Your task to perform on an android device: Go to Wikipedia Image 0: 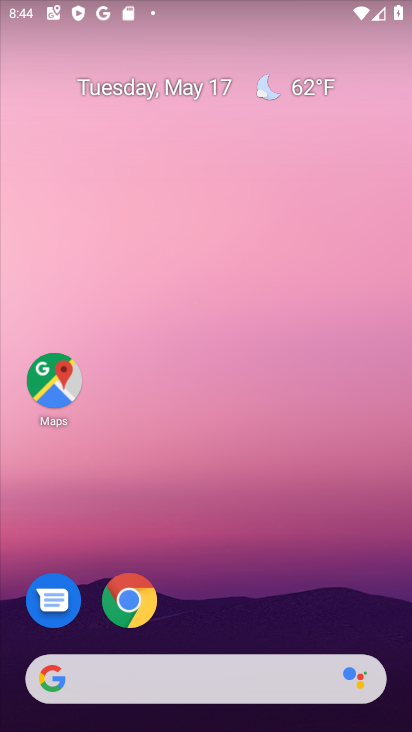
Step 0: click (131, 603)
Your task to perform on an android device: Go to Wikipedia Image 1: 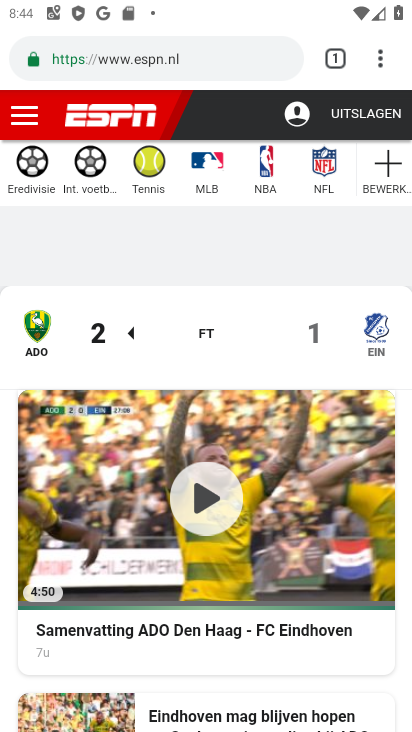
Step 1: click (380, 67)
Your task to perform on an android device: Go to Wikipedia Image 2: 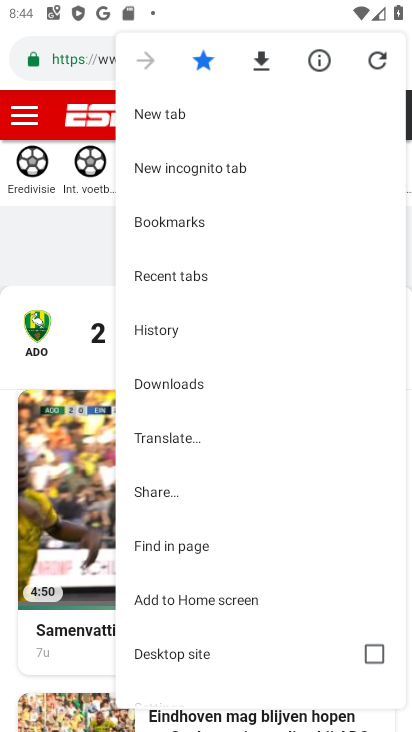
Step 2: click (154, 115)
Your task to perform on an android device: Go to Wikipedia Image 3: 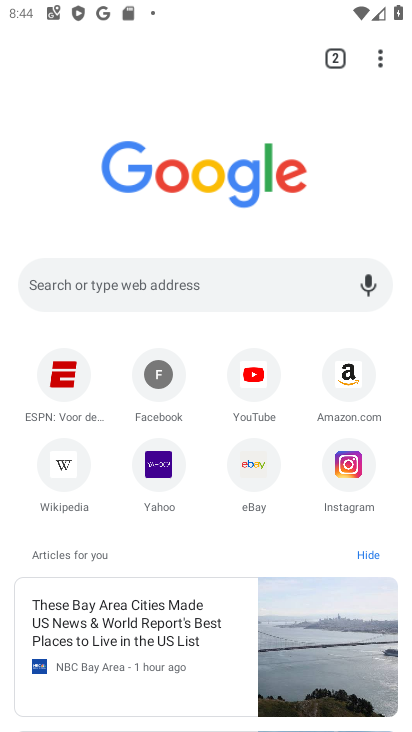
Step 3: click (180, 284)
Your task to perform on an android device: Go to Wikipedia Image 4: 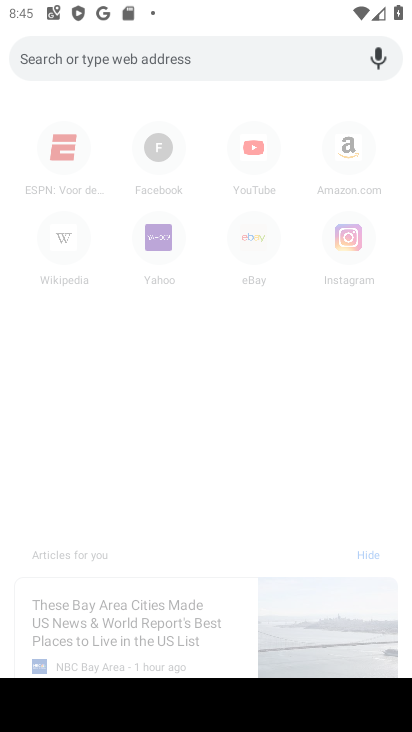
Step 4: type "Wikipedia"
Your task to perform on an android device: Go to Wikipedia Image 5: 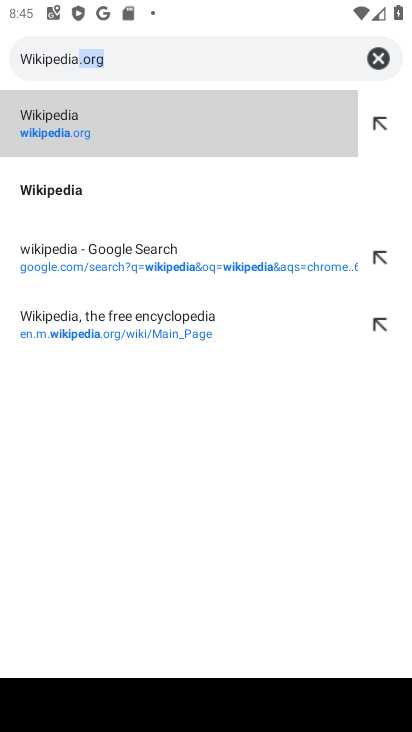
Step 5: click (66, 98)
Your task to perform on an android device: Go to Wikipedia Image 6: 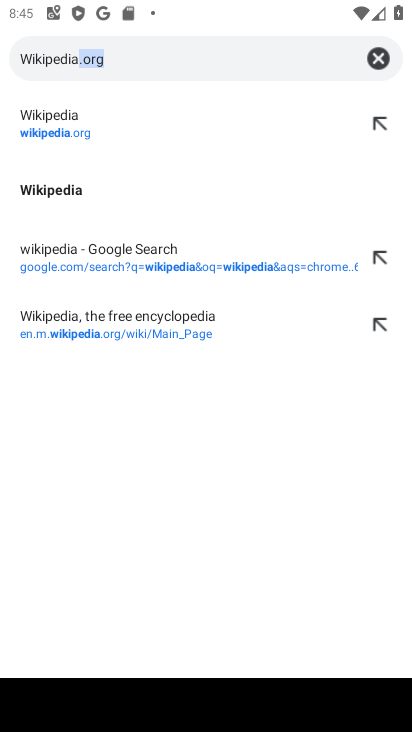
Step 6: click (61, 123)
Your task to perform on an android device: Go to Wikipedia Image 7: 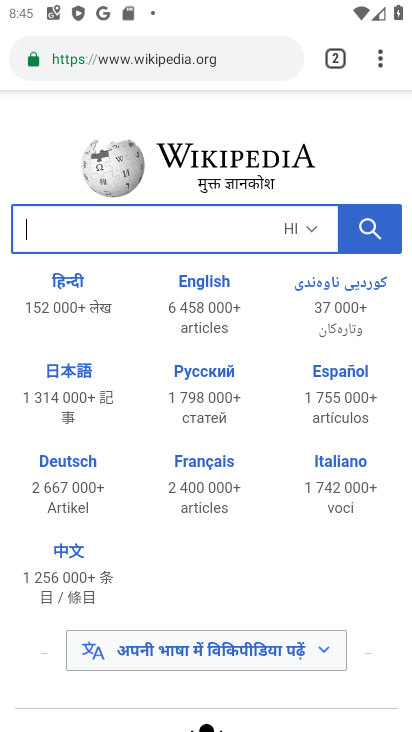
Step 7: task complete